Your task to perform on an android device: Go to Amazon Image 0: 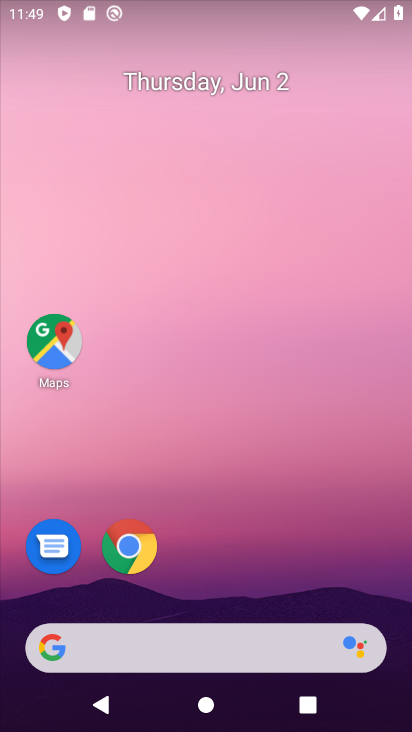
Step 0: click (133, 545)
Your task to perform on an android device: Go to Amazon Image 1: 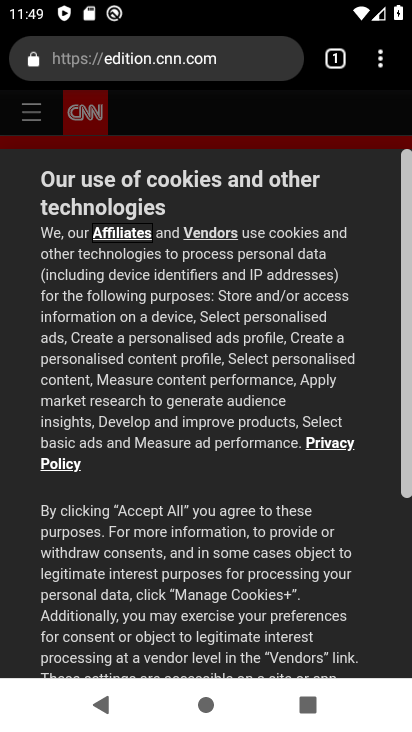
Step 1: click (340, 65)
Your task to perform on an android device: Go to Amazon Image 2: 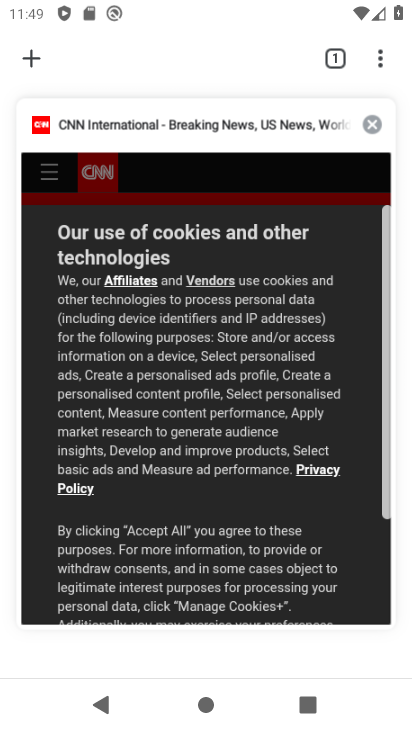
Step 2: click (33, 74)
Your task to perform on an android device: Go to Amazon Image 3: 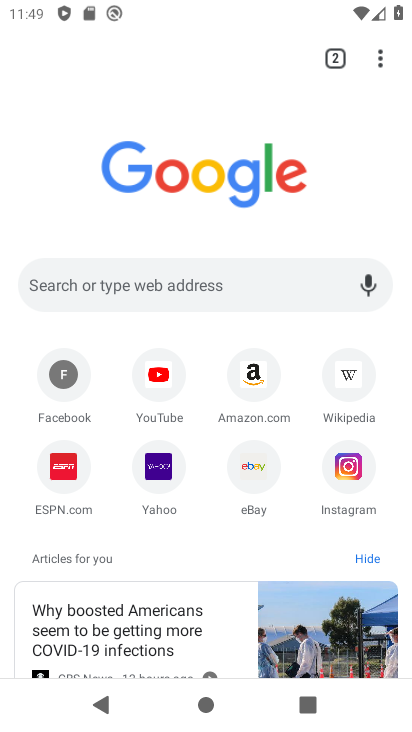
Step 3: click (253, 357)
Your task to perform on an android device: Go to Amazon Image 4: 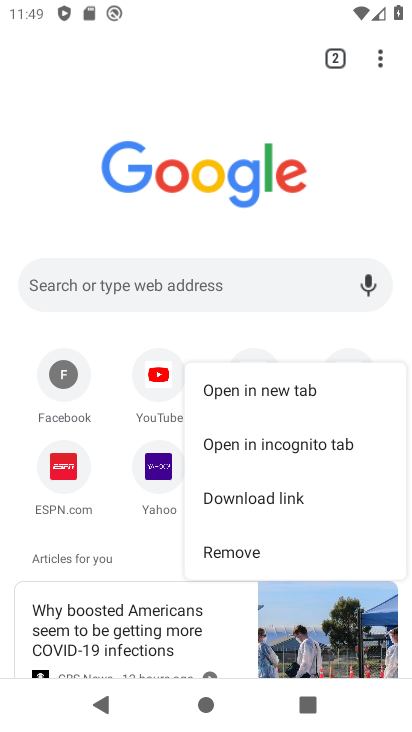
Step 4: click (374, 182)
Your task to perform on an android device: Go to Amazon Image 5: 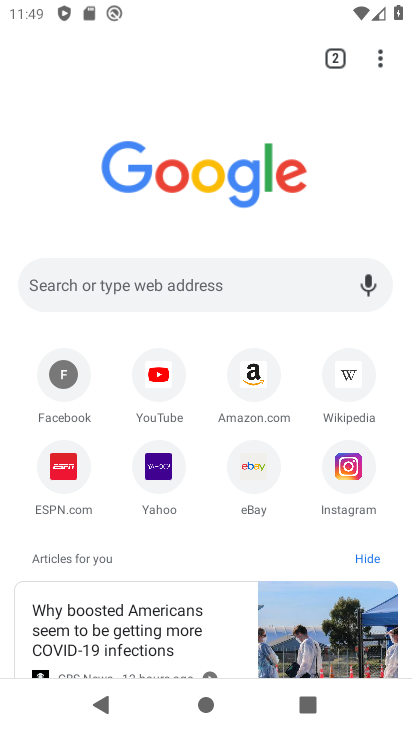
Step 5: click (259, 368)
Your task to perform on an android device: Go to Amazon Image 6: 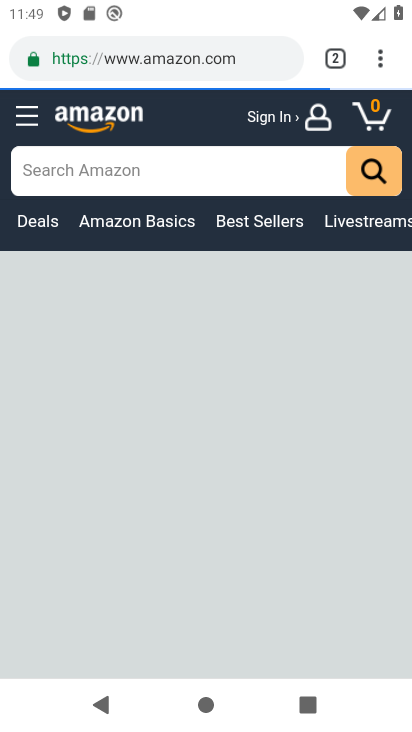
Step 6: task complete